Your task to perform on an android device: Go to Reddit.com Image 0: 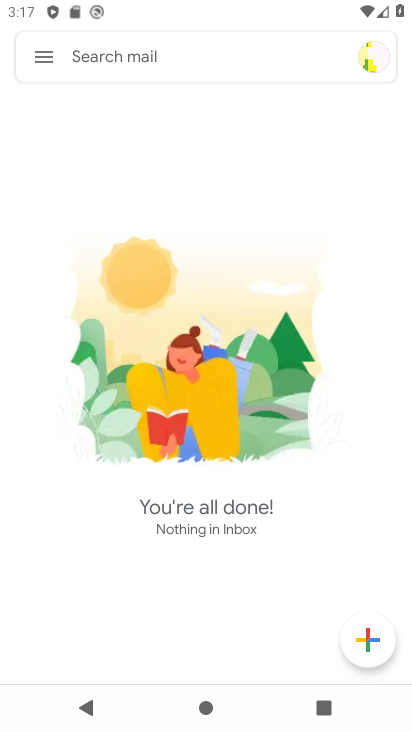
Step 0: press home button
Your task to perform on an android device: Go to Reddit.com Image 1: 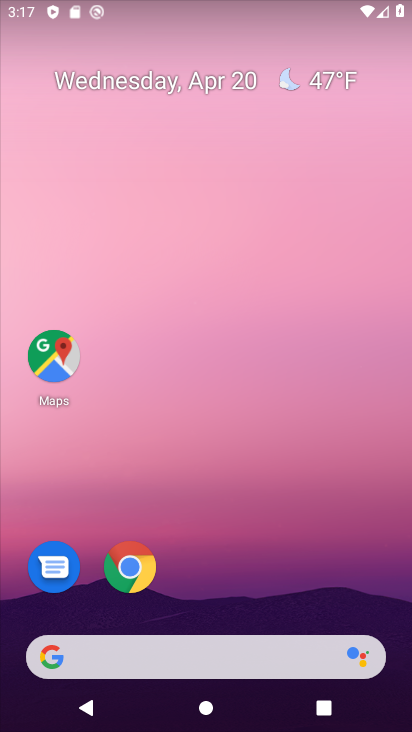
Step 1: click (182, 667)
Your task to perform on an android device: Go to Reddit.com Image 2: 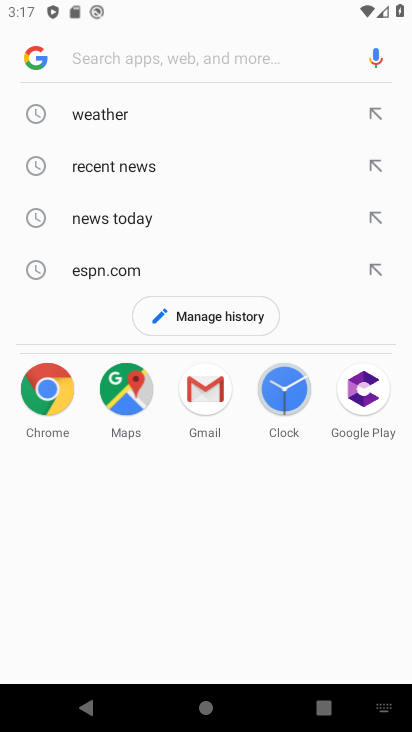
Step 2: type "reddit.com"
Your task to perform on an android device: Go to Reddit.com Image 3: 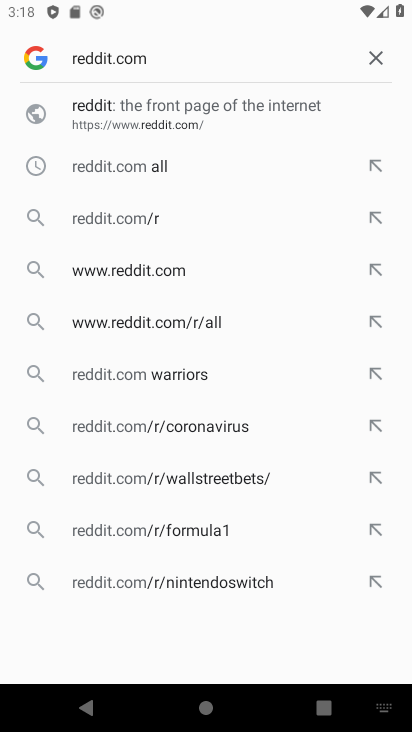
Step 3: click (106, 272)
Your task to perform on an android device: Go to Reddit.com Image 4: 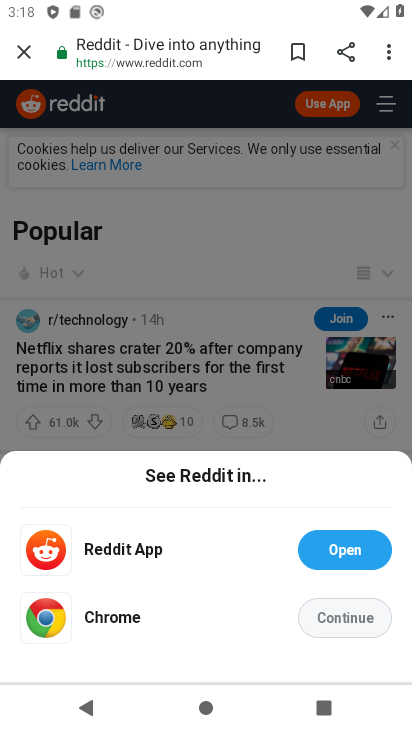
Step 4: task complete